Your task to perform on an android device: Is it going to rain tomorrow? Image 0: 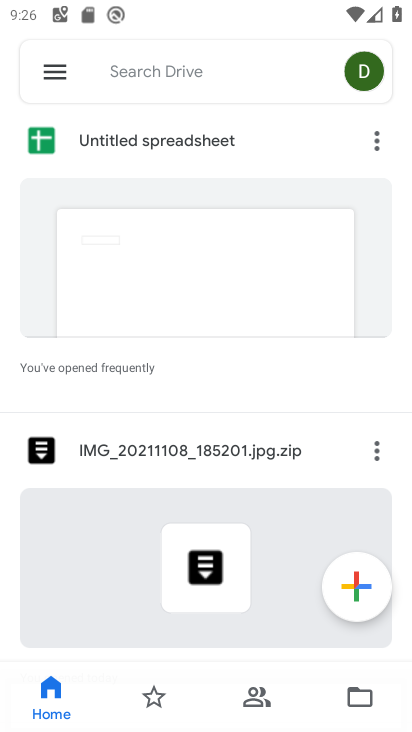
Step 0: press home button
Your task to perform on an android device: Is it going to rain tomorrow? Image 1: 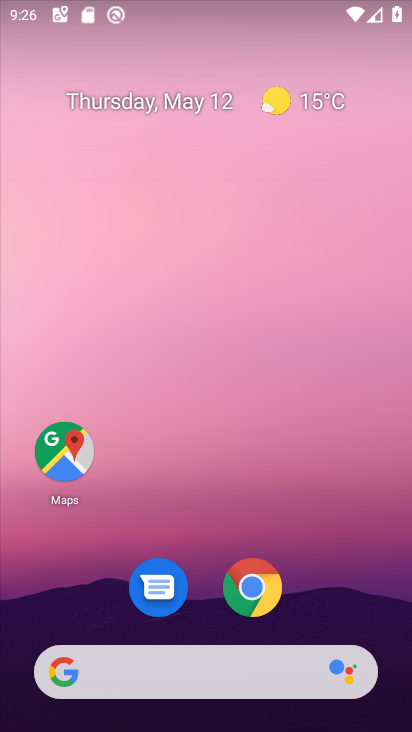
Step 1: click (230, 685)
Your task to perform on an android device: Is it going to rain tomorrow? Image 2: 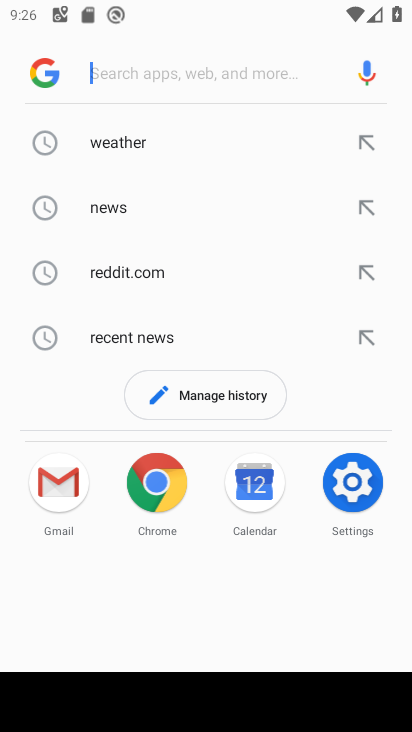
Step 2: type "Is it going to rain tomorrow?"
Your task to perform on an android device: Is it going to rain tomorrow? Image 3: 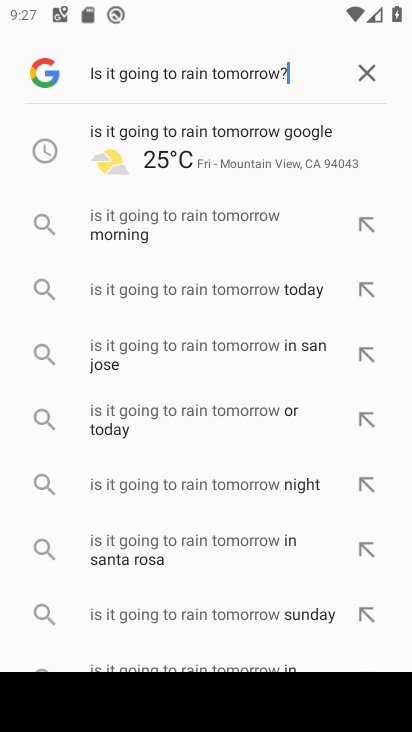
Step 3: click (223, 134)
Your task to perform on an android device: Is it going to rain tomorrow? Image 4: 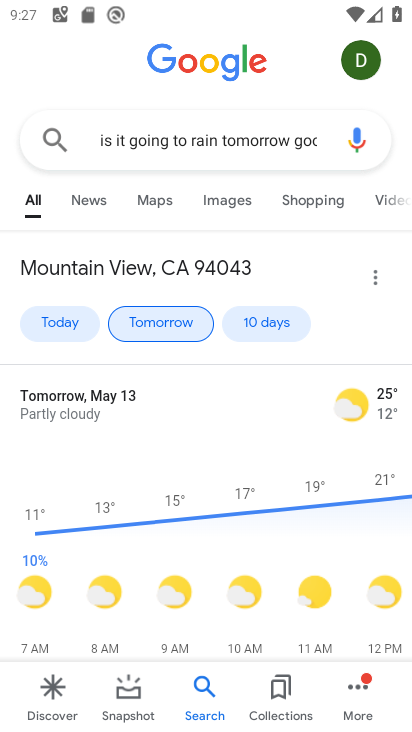
Step 4: task complete